Your task to perform on an android device: What's the weather? Image 0: 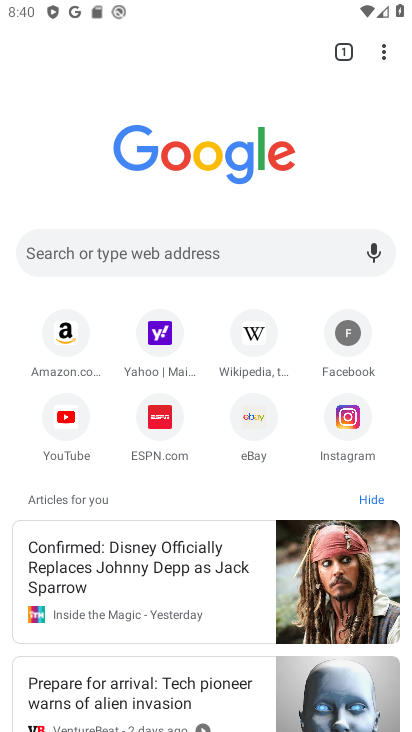
Step 0: press home button
Your task to perform on an android device: What's the weather? Image 1: 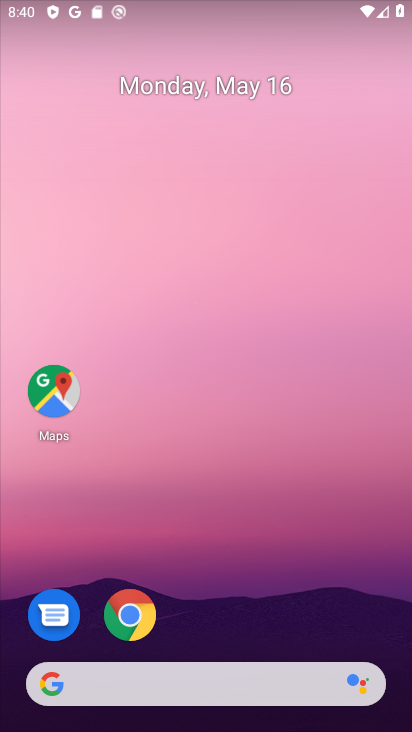
Step 1: click (193, 681)
Your task to perform on an android device: What's the weather? Image 2: 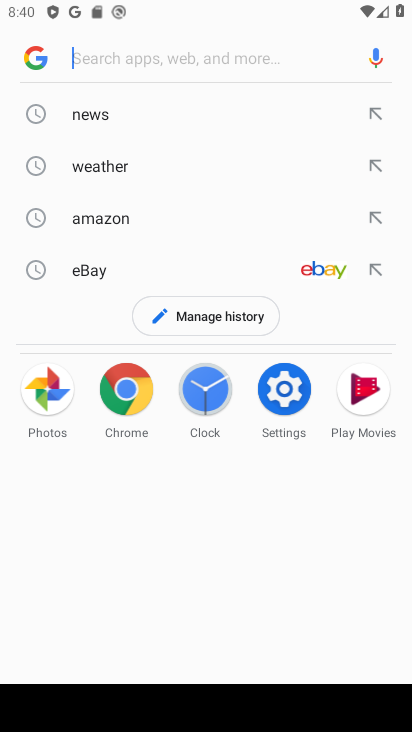
Step 2: click (114, 165)
Your task to perform on an android device: What's the weather? Image 3: 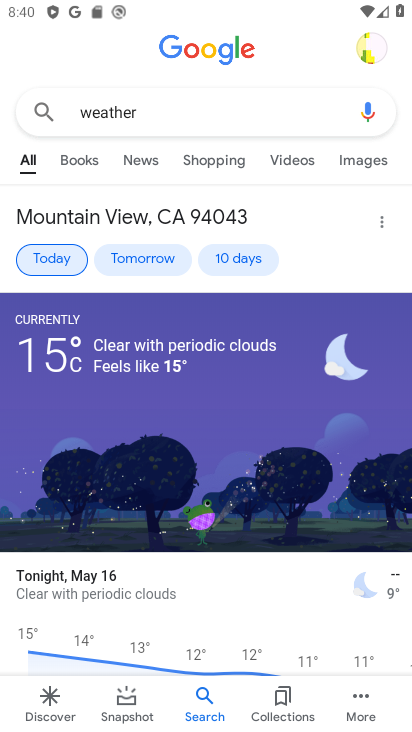
Step 3: task complete